Your task to perform on an android device: Is it going to rain tomorrow? Image 0: 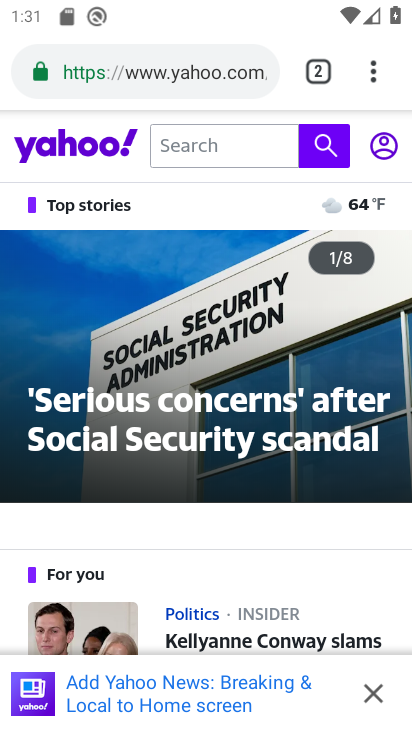
Step 0: press home button
Your task to perform on an android device: Is it going to rain tomorrow? Image 1: 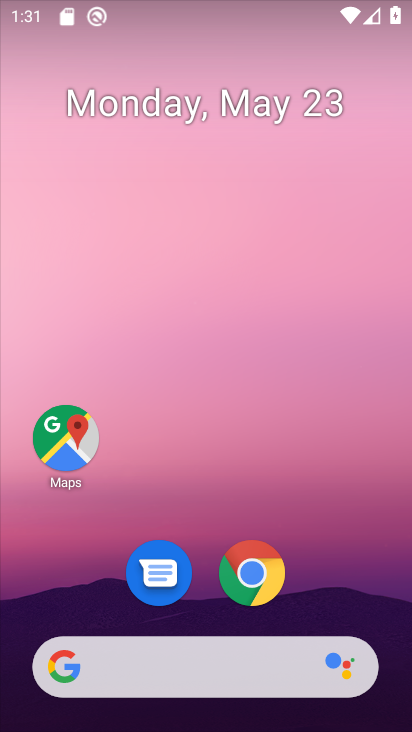
Step 1: click (202, 663)
Your task to perform on an android device: Is it going to rain tomorrow? Image 2: 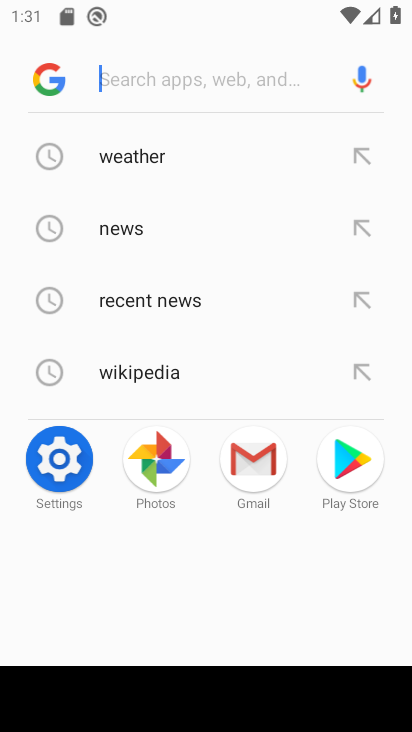
Step 2: click (175, 155)
Your task to perform on an android device: Is it going to rain tomorrow? Image 3: 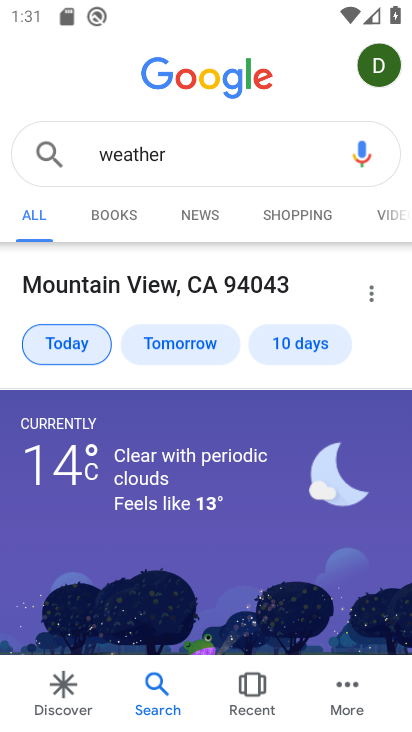
Step 3: click (194, 342)
Your task to perform on an android device: Is it going to rain tomorrow? Image 4: 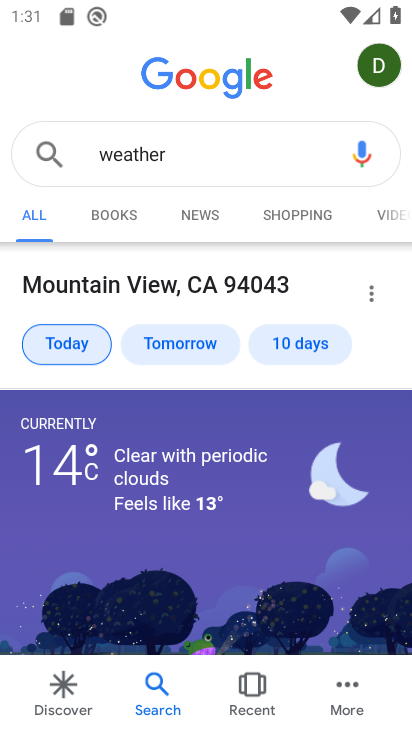
Step 4: drag from (266, 489) to (299, 279)
Your task to perform on an android device: Is it going to rain tomorrow? Image 5: 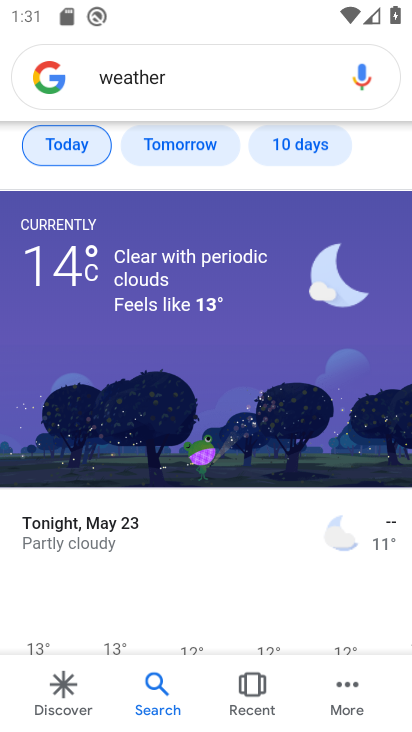
Step 5: click (197, 144)
Your task to perform on an android device: Is it going to rain tomorrow? Image 6: 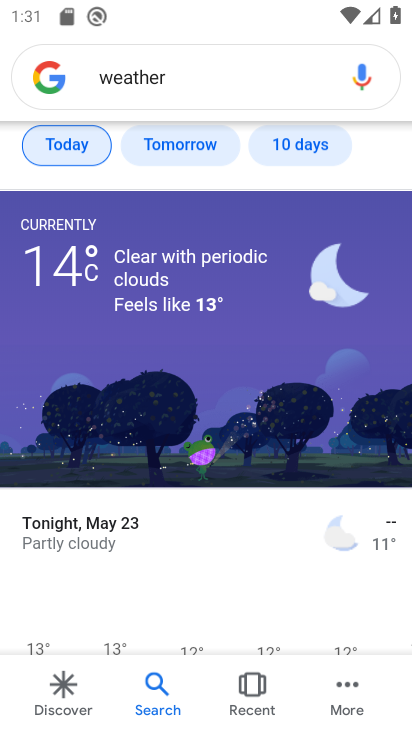
Step 6: click (293, 143)
Your task to perform on an android device: Is it going to rain tomorrow? Image 7: 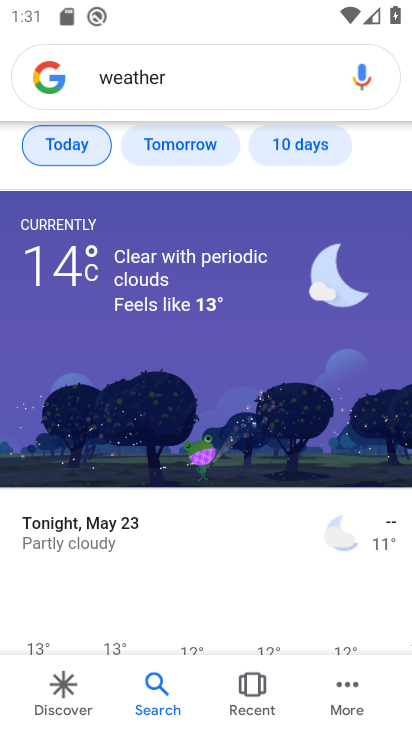
Step 7: click (173, 143)
Your task to perform on an android device: Is it going to rain tomorrow? Image 8: 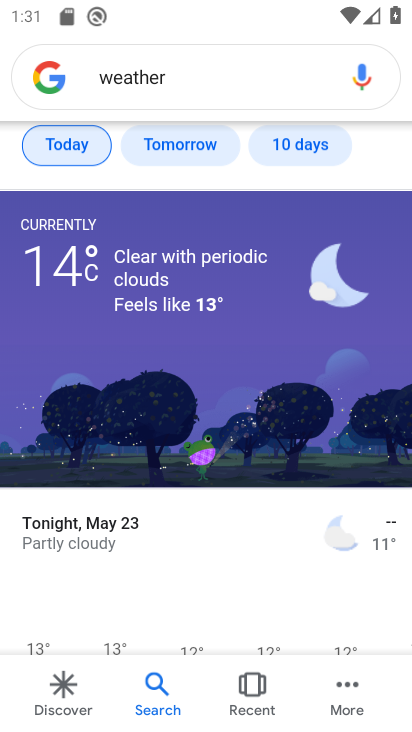
Step 8: task complete